Your task to perform on an android device: Search for the best rated headphones on Amazon. Image 0: 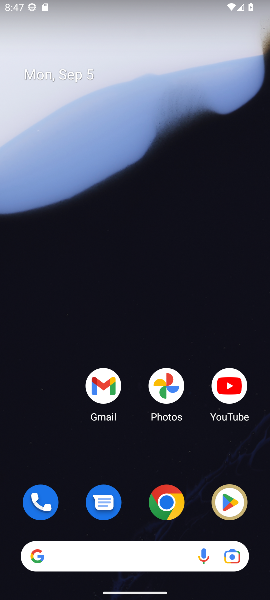
Step 0: drag from (199, 466) to (138, 4)
Your task to perform on an android device: Search for the best rated headphones on Amazon. Image 1: 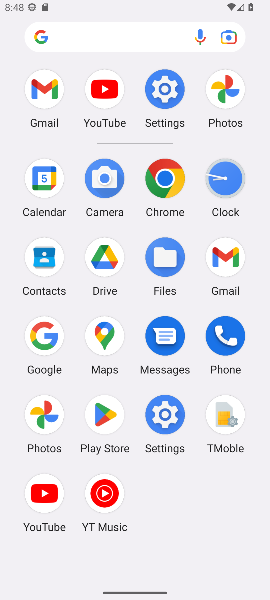
Step 1: click (37, 328)
Your task to perform on an android device: Search for the best rated headphones on Amazon. Image 2: 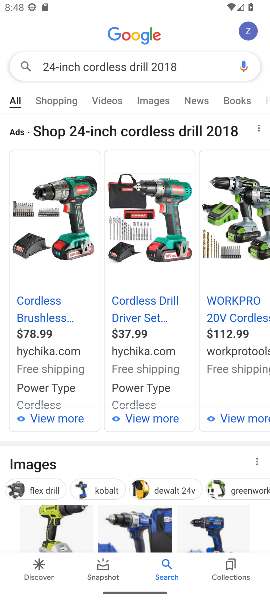
Step 2: press back button
Your task to perform on an android device: Search for the best rated headphones on Amazon. Image 3: 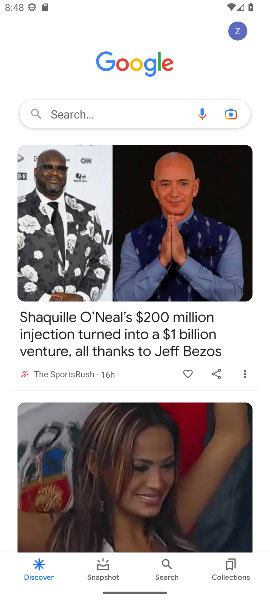
Step 3: click (74, 123)
Your task to perform on an android device: Search for the best rated headphones on Amazon. Image 4: 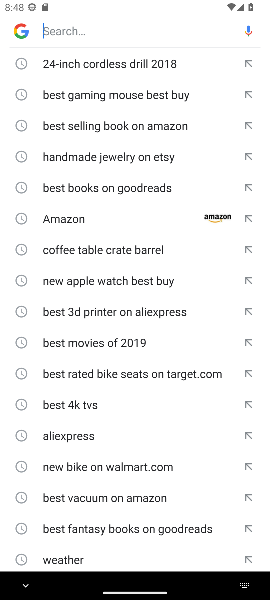
Step 4: type "best rated headphones on Amazon"
Your task to perform on an android device: Search for the best rated headphones on Amazon. Image 5: 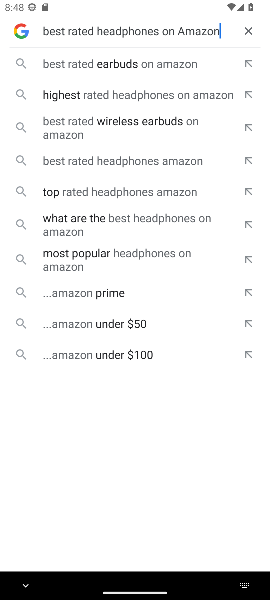
Step 5: click (98, 67)
Your task to perform on an android device: Search for the best rated headphones on Amazon. Image 6: 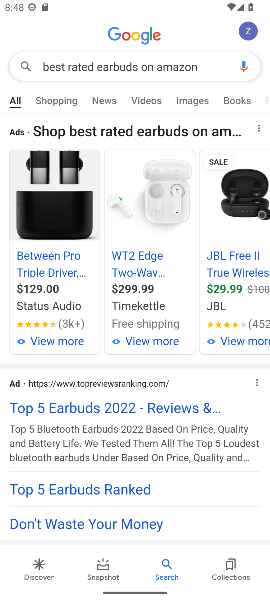
Step 6: task complete